Your task to perform on an android device: Open internet settings Image 0: 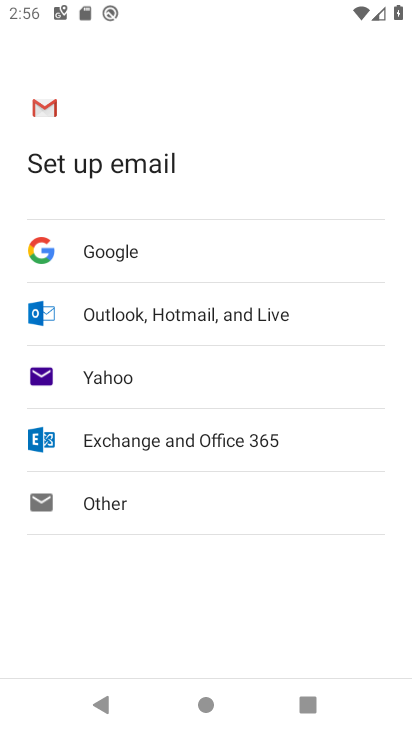
Step 0: press back button
Your task to perform on an android device: Open internet settings Image 1: 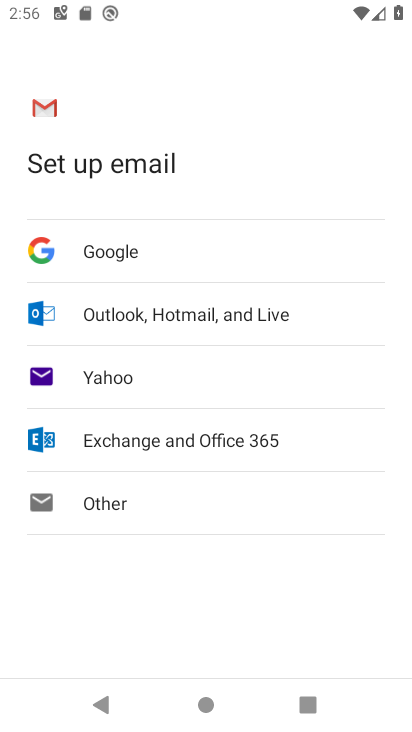
Step 1: press back button
Your task to perform on an android device: Open internet settings Image 2: 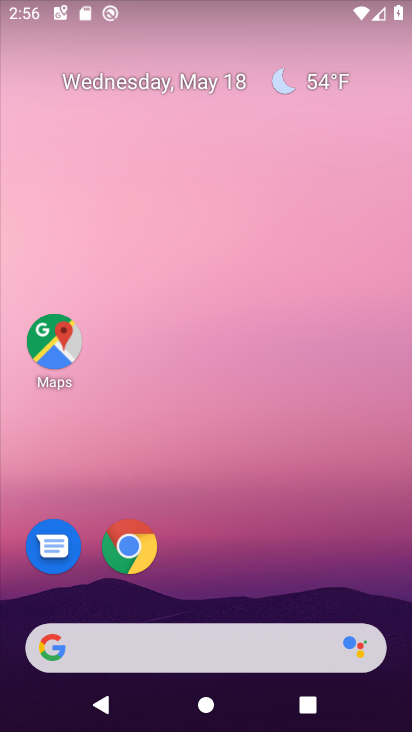
Step 2: drag from (256, 640) to (121, 188)
Your task to perform on an android device: Open internet settings Image 3: 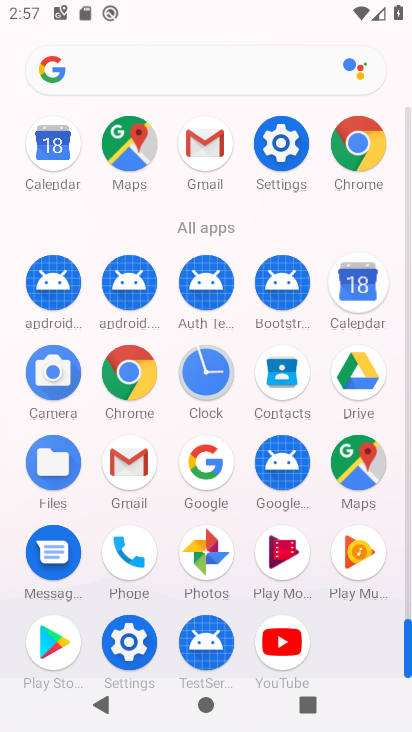
Step 3: click (281, 148)
Your task to perform on an android device: Open internet settings Image 4: 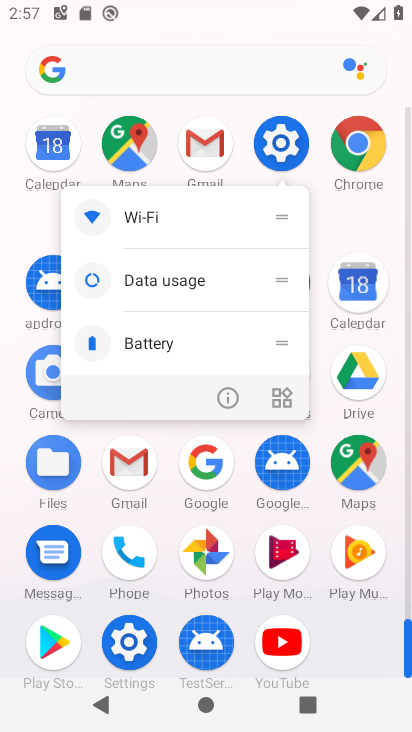
Step 4: click (278, 141)
Your task to perform on an android device: Open internet settings Image 5: 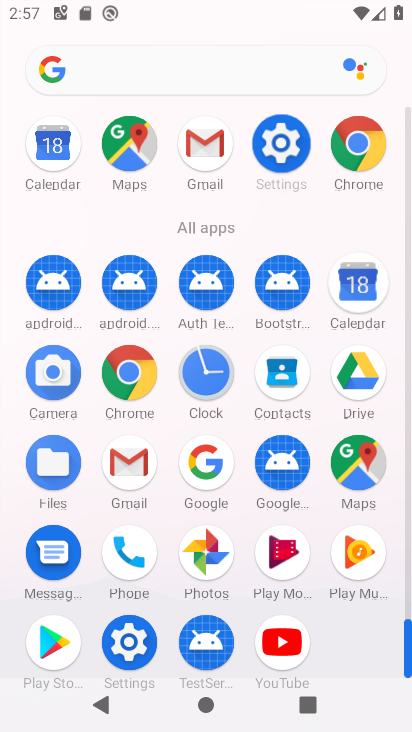
Step 5: click (280, 139)
Your task to perform on an android device: Open internet settings Image 6: 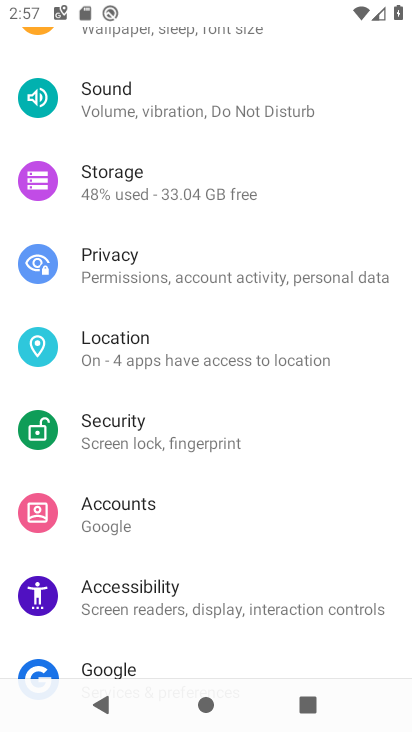
Step 6: click (283, 143)
Your task to perform on an android device: Open internet settings Image 7: 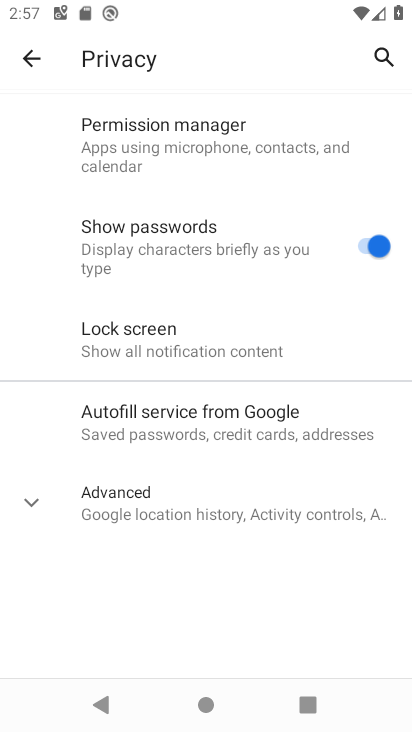
Step 7: click (27, 55)
Your task to perform on an android device: Open internet settings Image 8: 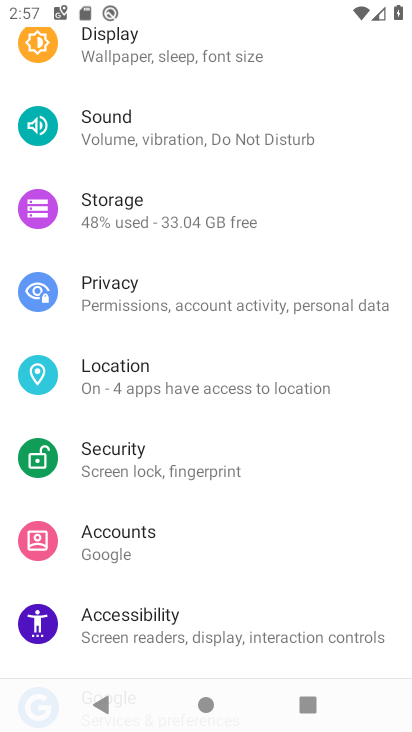
Step 8: drag from (175, 175) to (142, 562)
Your task to perform on an android device: Open internet settings Image 9: 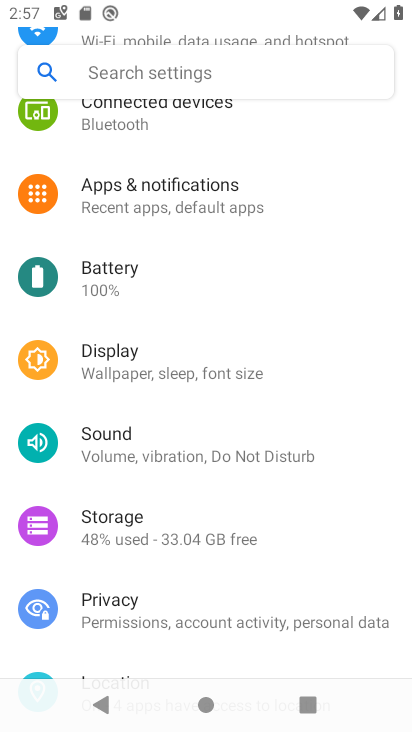
Step 9: drag from (151, 267) to (188, 636)
Your task to perform on an android device: Open internet settings Image 10: 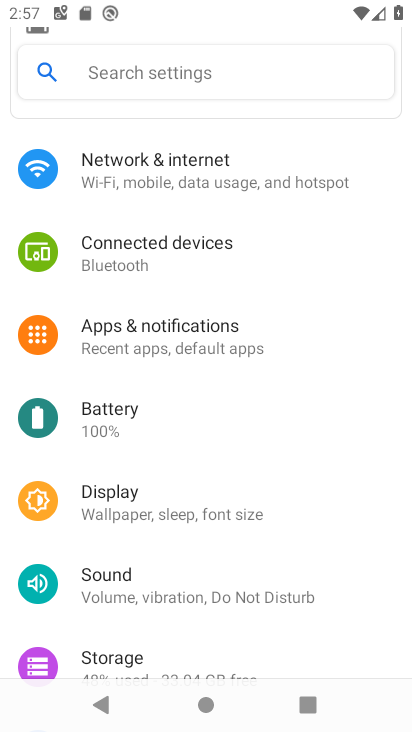
Step 10: drag from (184, 200) to (210, 598)
Your task to perform on an android device: Open internet settings Image 11: 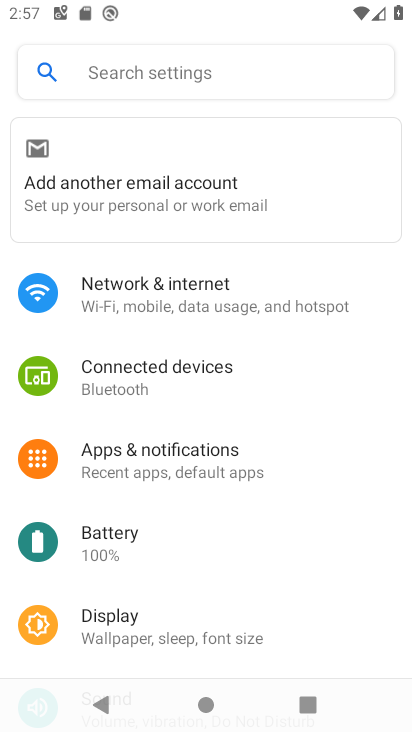
Step 11: click (186, 529)
Your task to perform on an android device: Open internet settings Image 12: 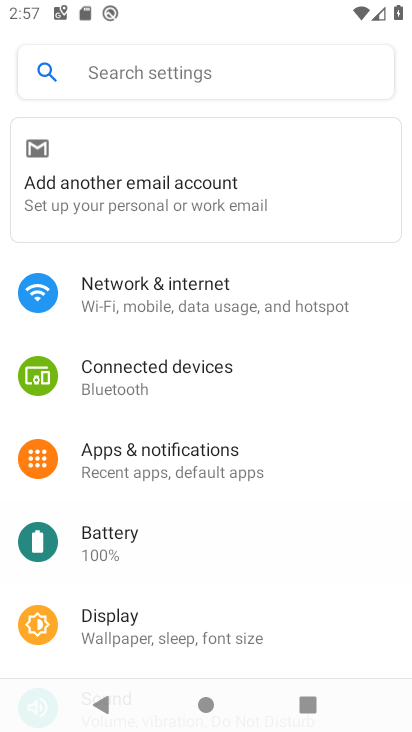
Step 12: drag from (159, 299) to (159, 470)
Your task to perform on an android device: Open internet settings Image 13: 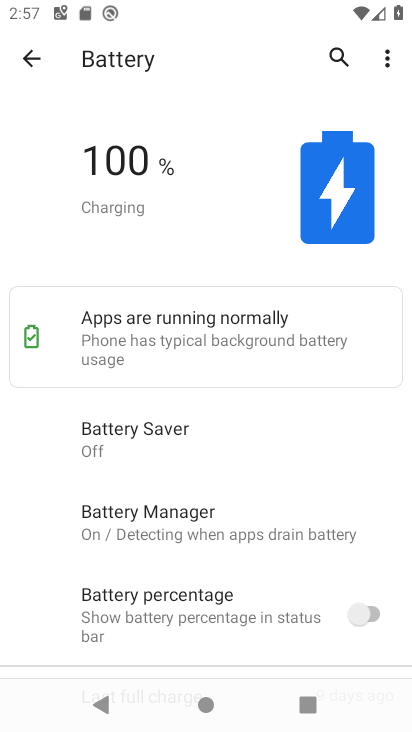
Step 13: click (35, 51)
Your task to perform on an android device: Open internet settings Image 14: 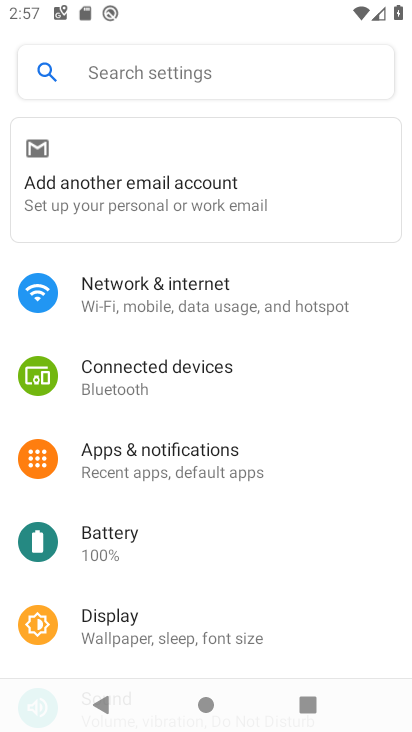
Step 14: click (191, 289)
Your task to perform on an android device: Open internet settings Image 15: 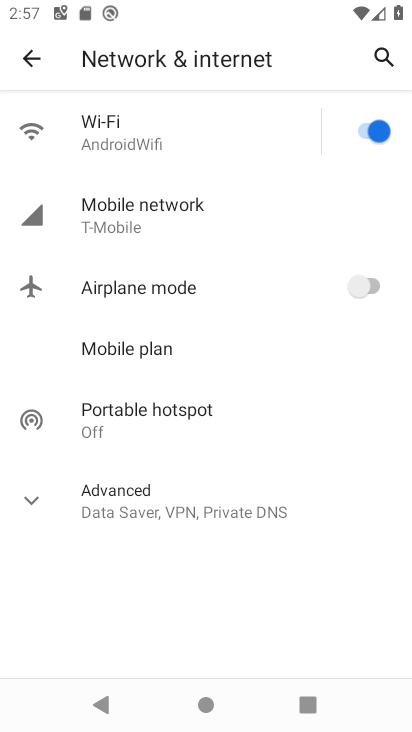
Step 15: task complete